Your task to perform on an android device: star an email in the gmail app Image 0: 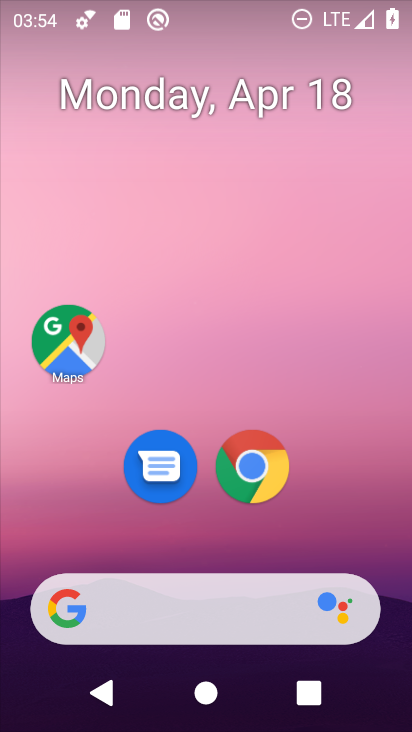
Step 0: drag from (317, 517) to (324, 114)
Your task to perform on an android device: star an email in the gmail app Image 1: 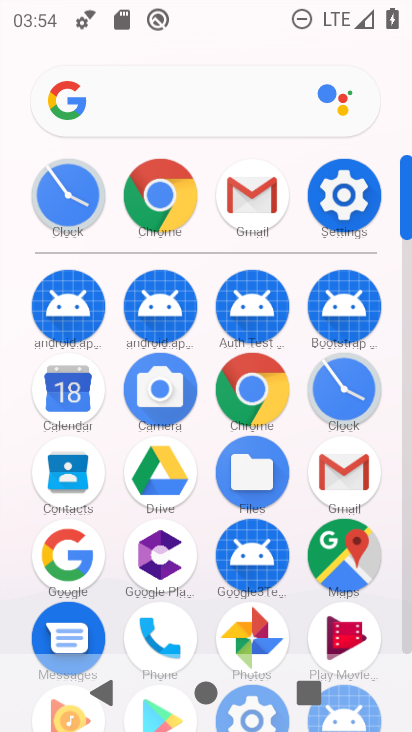
Step 1: click (243, 183)
Your task to perform on an android device: star an email in the gmail app Image 2: 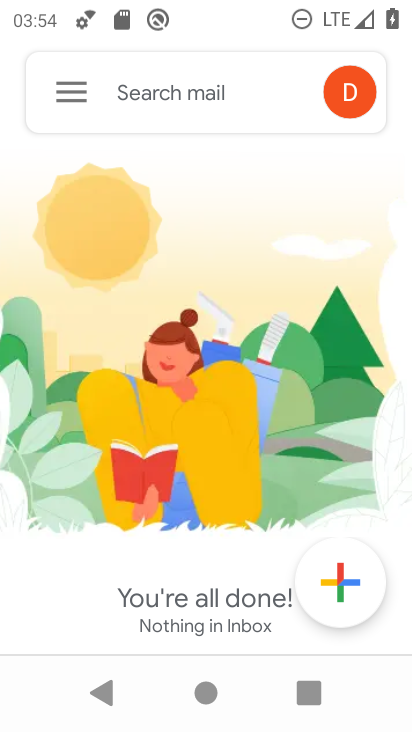
Step 2: click (79, 103)
Your task to perform on an android device: star an email in the gmail app Image 3: 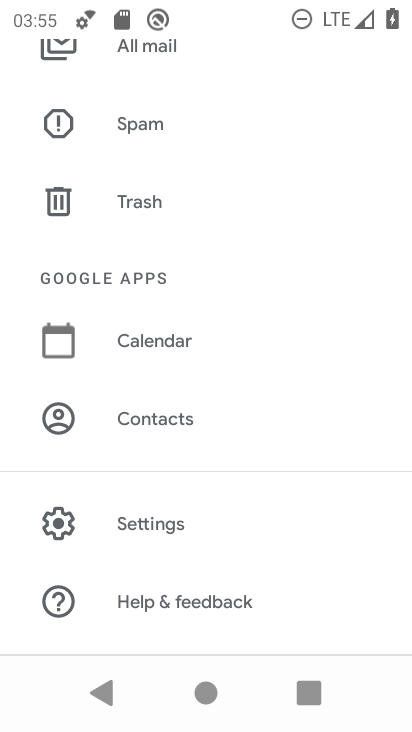
Step 3: drag from (218, 292) to (218, 526)
Your task to perform on an android device: star an email in the gmail app Image 4: 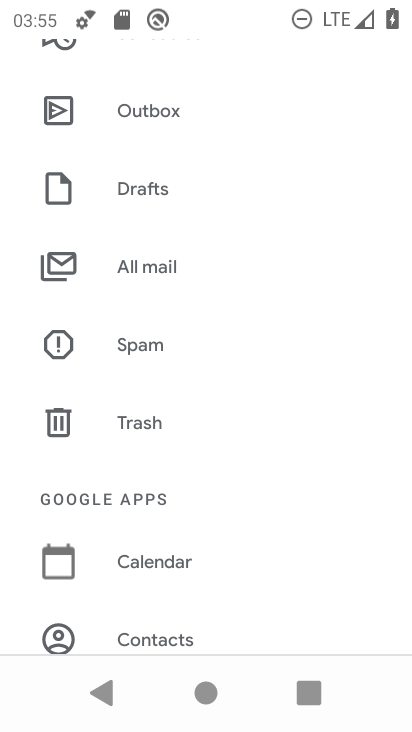
Step 4: click (121, 252)
Your task to perform on an android device: star an email in the gmail app Image 5: 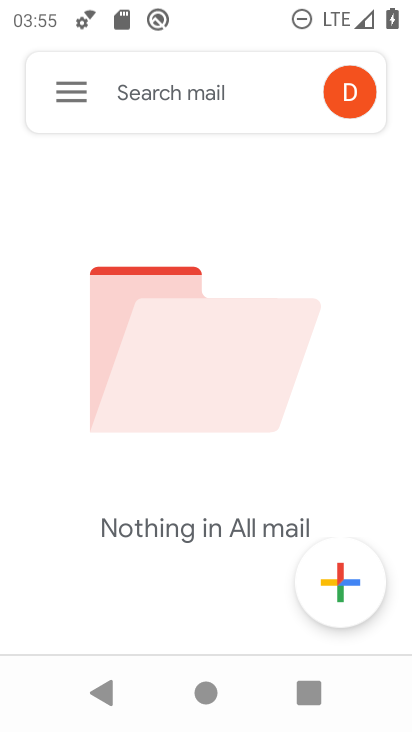
Step 5: task complete